Your task to perform on an android device: change alarm snooze length Image 0: 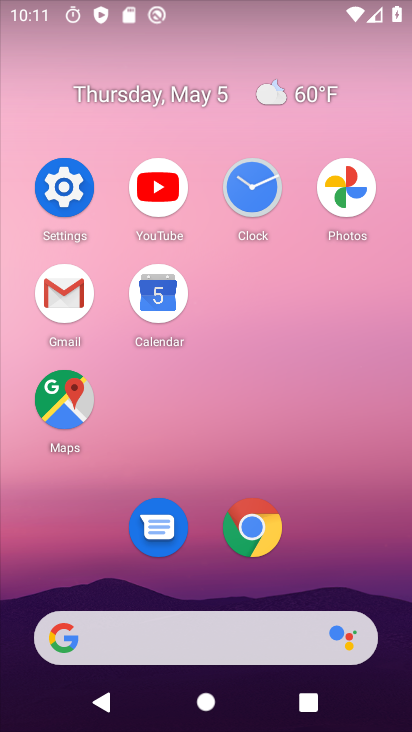
Step 0: click (261, 210)
Your task to perform on an android device: change alarm snooze length Image 1: 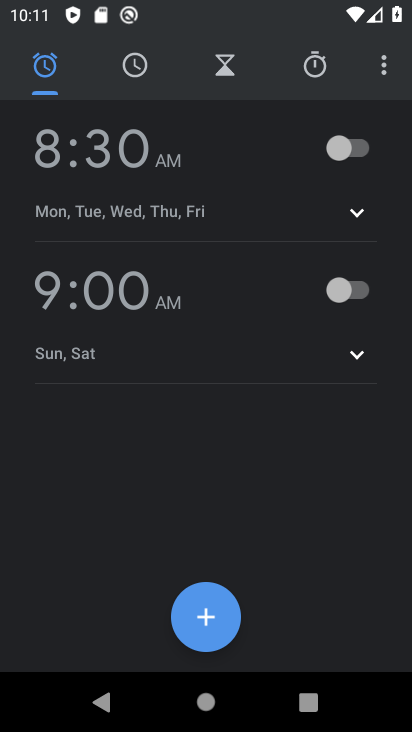
Step 1: click (392, 52)
Your task to perform on an android device: change alarm snooze length Image 2: 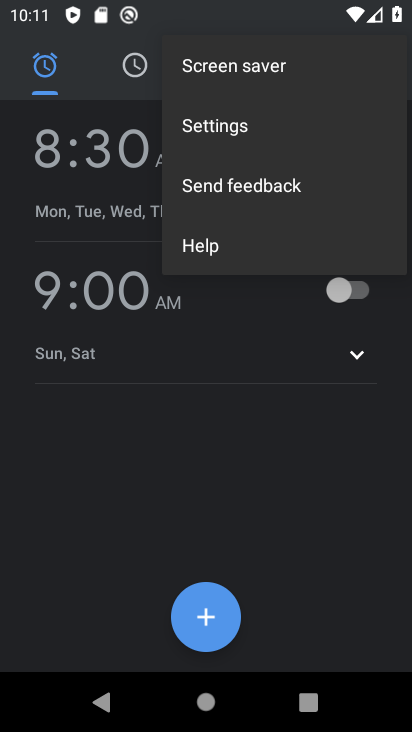
Step 2: click (256, 126)
Your task to perform on an android device: change alarm snooze length Image 3: 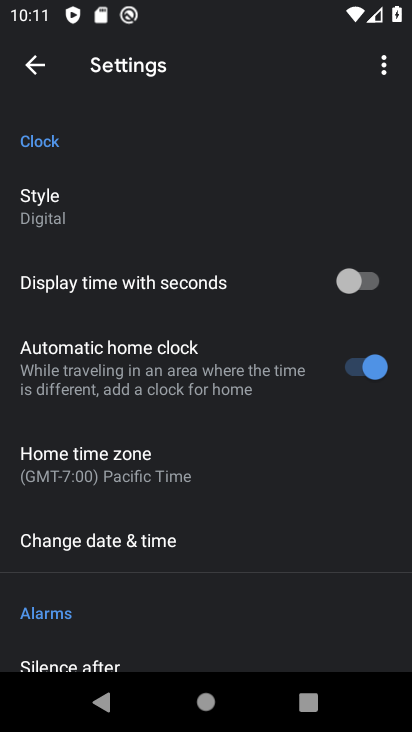
Step 3: drag from (210, 514) to (253, 162)
Your task to perform on an android device: change alarm snooze length Image 4: 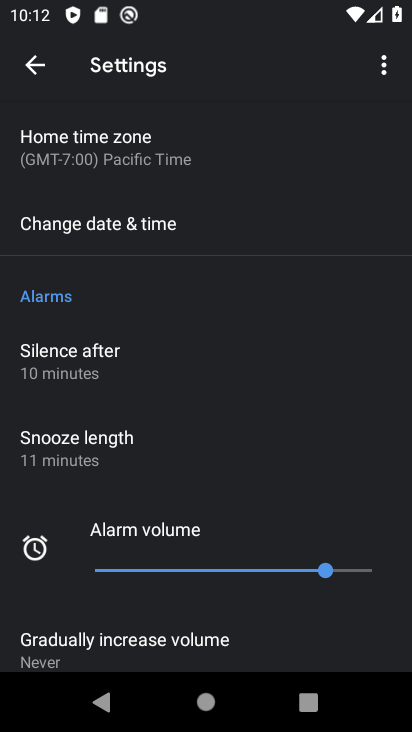
Step 4: click (140, 440)
Your task to perform on an android device: change alarm snooze length Image 5: 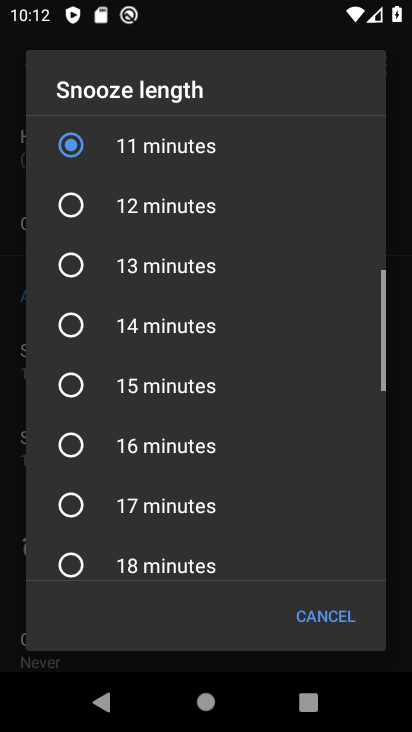
Step 5: click (161, 207)
Your task to perform on an android device: change alarm snooze length Image 6: 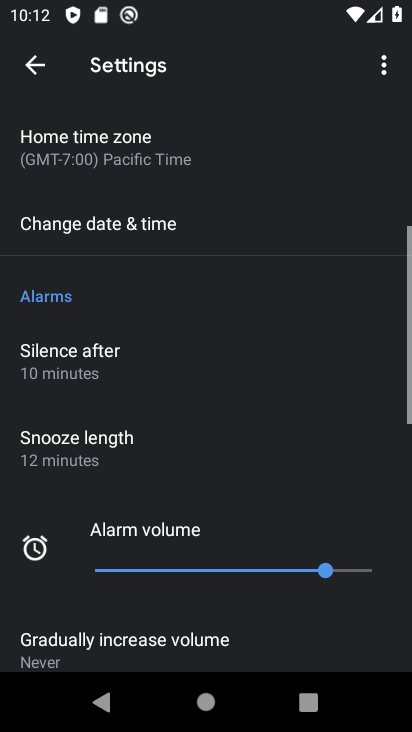
Step 6: task complete